Your task to perform on an android device: Go to ESPN.com Image 0: 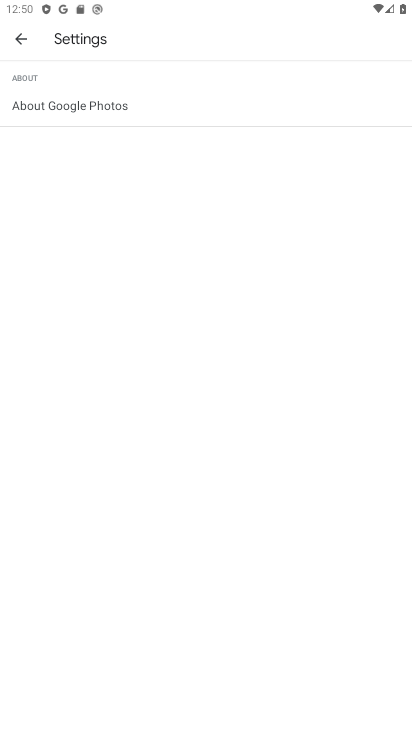
Step 0: press home button
Your task to perform on an android device: Go to ESPN.com Image 1: 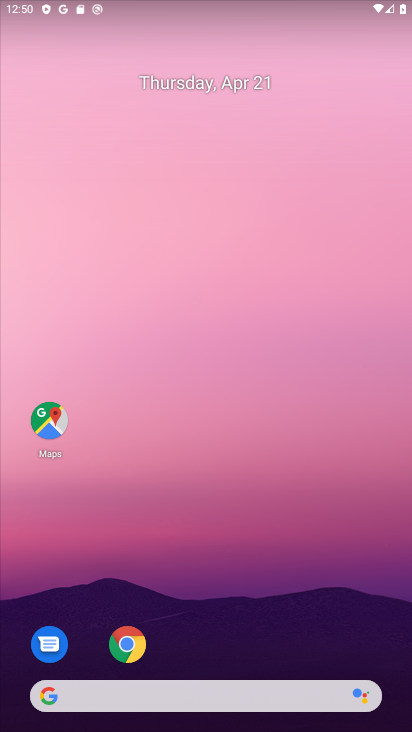
Step 1: click (129, 632)
Your task to perform on an android device: Go to ESPN.com Image 2: 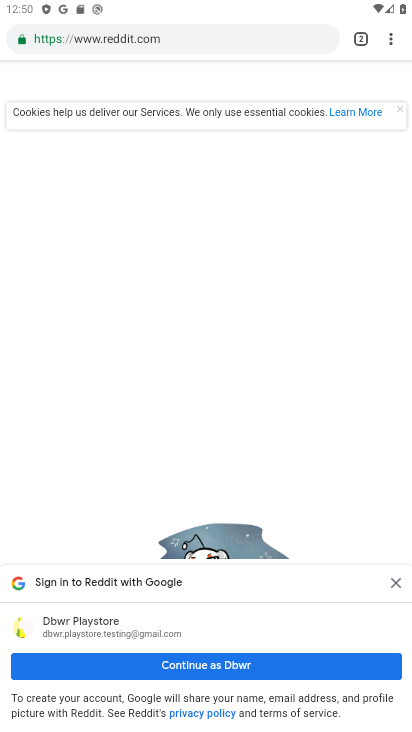
Step 2: click (189, 36)
Your task to perform on an android device: Go to ESPN.com Image 3: 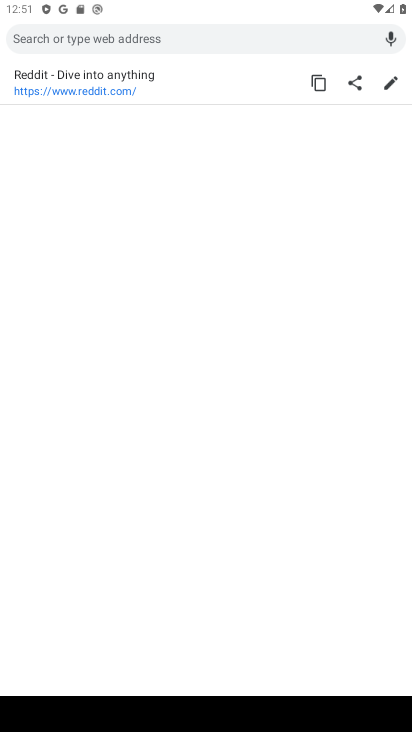
Step 3: type "espn"
Your task to perform on an android device: Go to ESPN.com Image 4: 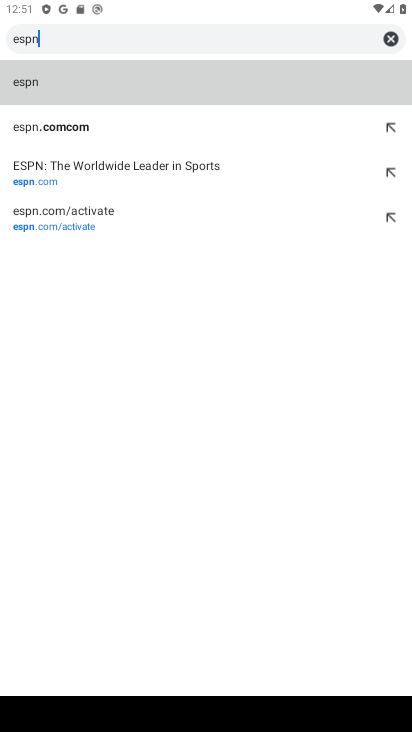
Step 4: click (65, 186)
Your task to perform on an android device: Go to ESPN.com Image 5: 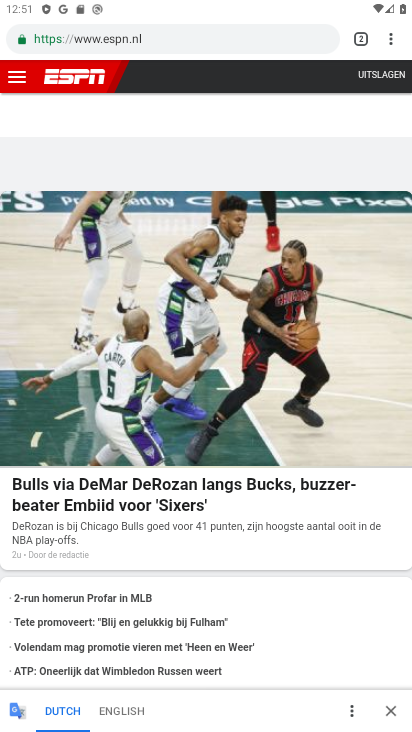
Step 5: task complete